Your task to perform on an android device: turn on improve location accuracy Image 0: 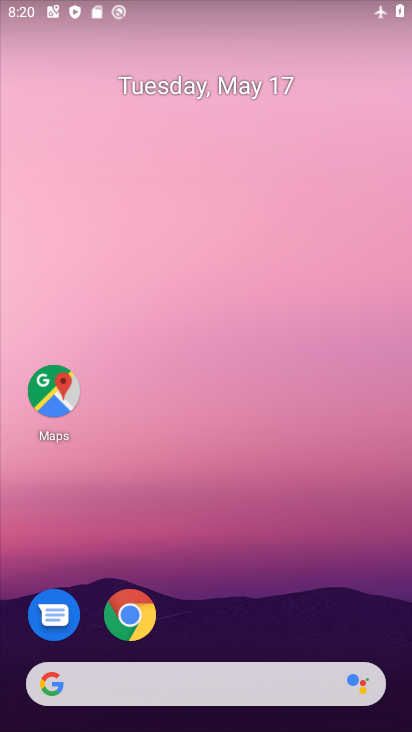
Step 0: drag from (281, 612) to (269, 248)
Your task to perform on an android device: turn on improve location accuracy Image 1: 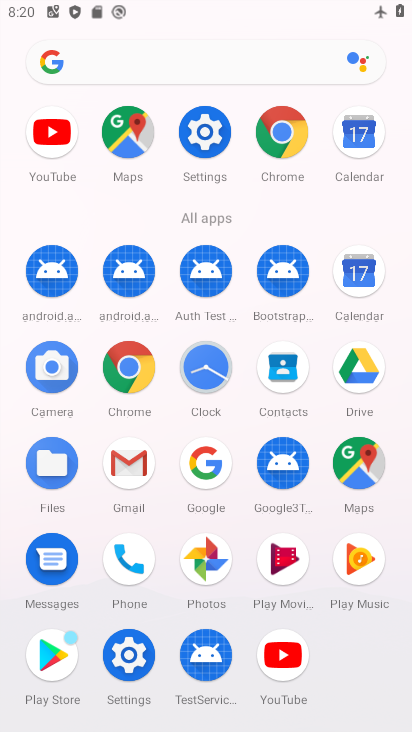
Step 1: click (204, 117)
Your task to perform on an android device: turn on improve location accuracy Image 2: 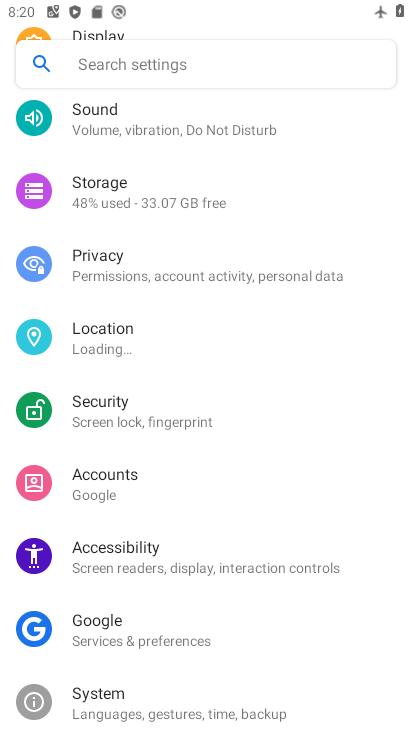
Step 2: click (147, 341)
Your task to perform on an android device: turn on improve location accuracy Image 3: 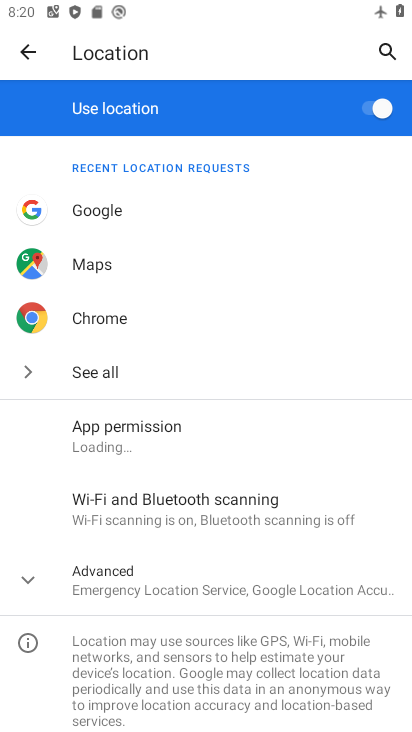
Step 3: click (205, 571)
Your task to perform on an android device: turn on improve location accuracy Image 4: 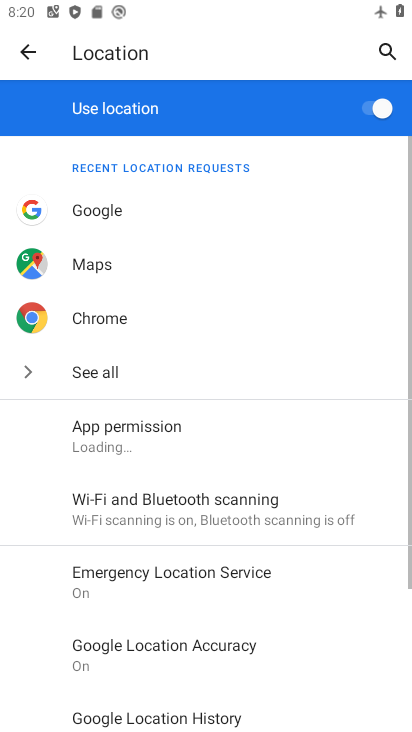
Step 4: drag from (234, 662) to (255, 342)
Your task to perform on an android device: turn on improve location accuracy Image 5: 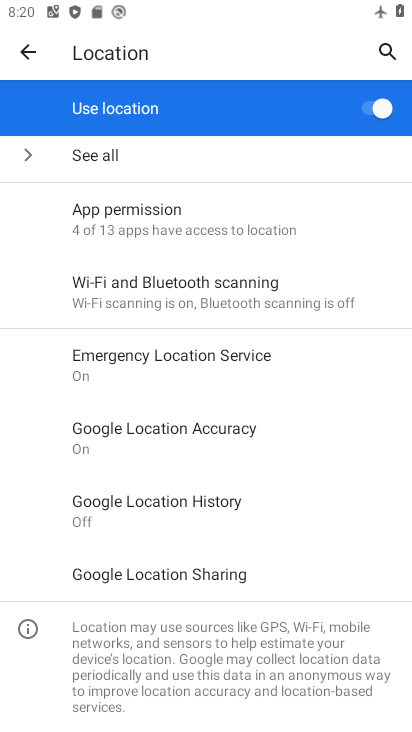
Step 5: click (182, 437)
Your task to perform on an android device: turn on improve location accuracy Image 6: 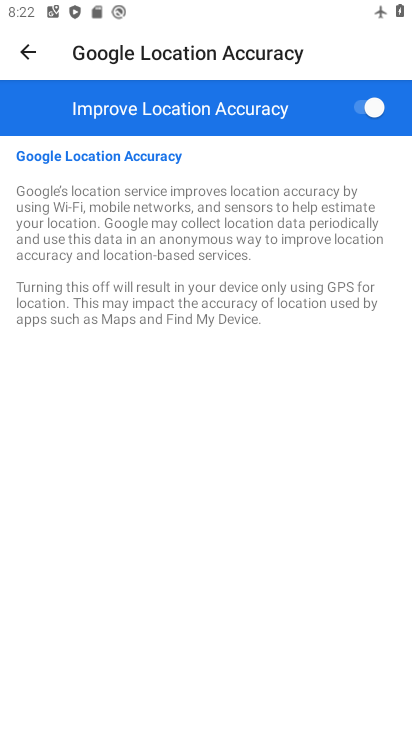
Step 6: task complete